Your task to perform on an android device: set the timer Image 0: 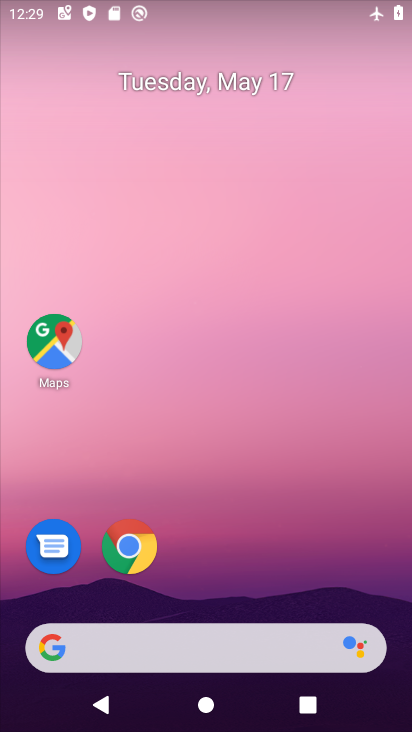
Step 0: drag from (394, 617) to (361, 82)
Your task to perform on an android device: set the timer Image 1: 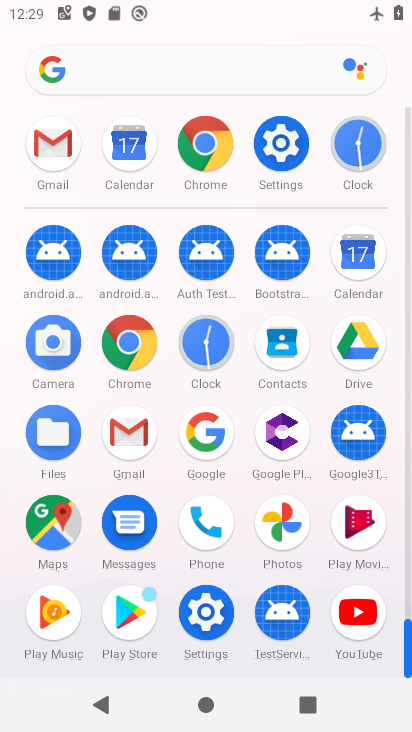
Step 1: click (202, 338)
Your task to perform on an android device: set the timer Image 2: 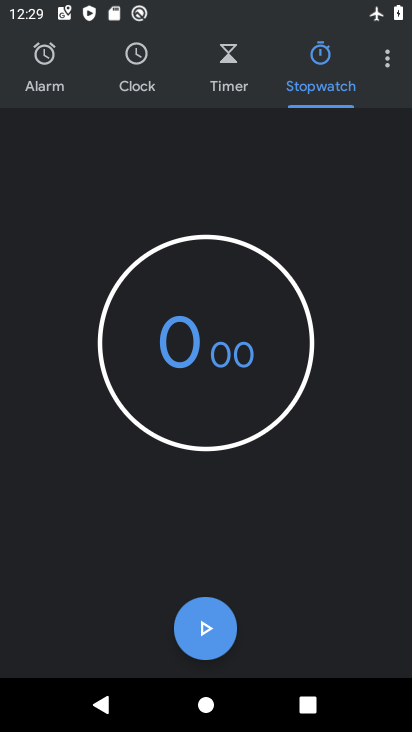
Step 2: click (231, 73)
Your task to perform on an android device: set the timer Image 3: 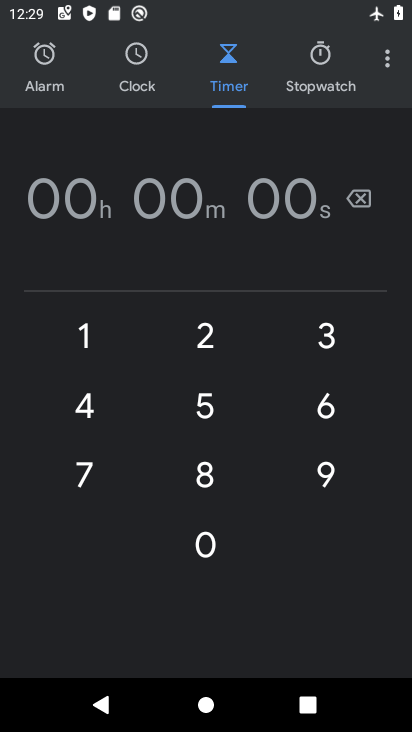
Step 3: task complete